Your task to perform on an android device: star an email in the gmail app Image 0: 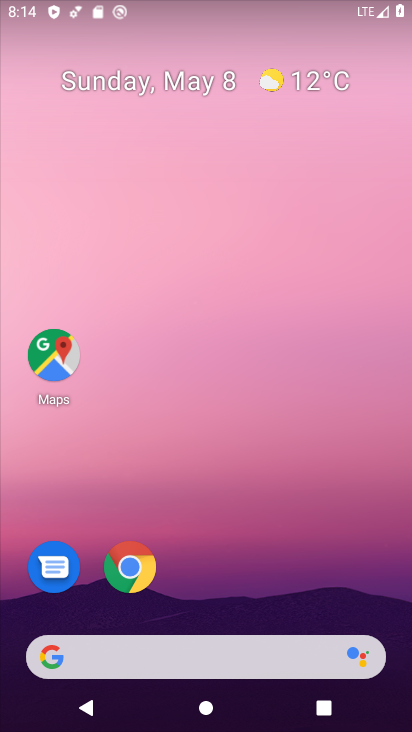
Step 0: drag from (184, 659) to (178, 137)
Your task to perform on an android device: star an email in the gmail app Image 1: 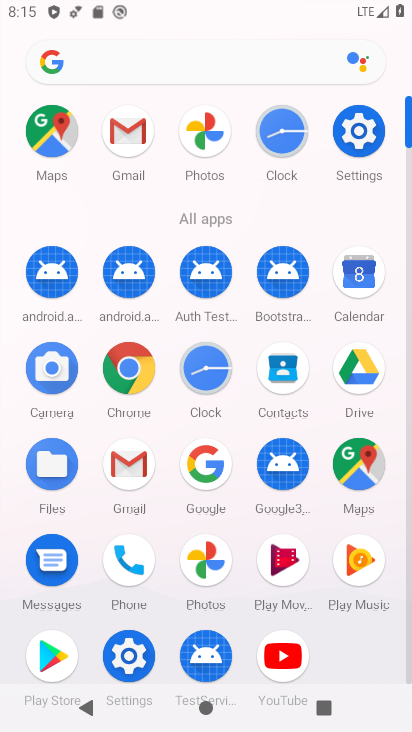
Step 1: click (137, 473)
Your task to perform on an android device: star an email in the gmail app Image 2: 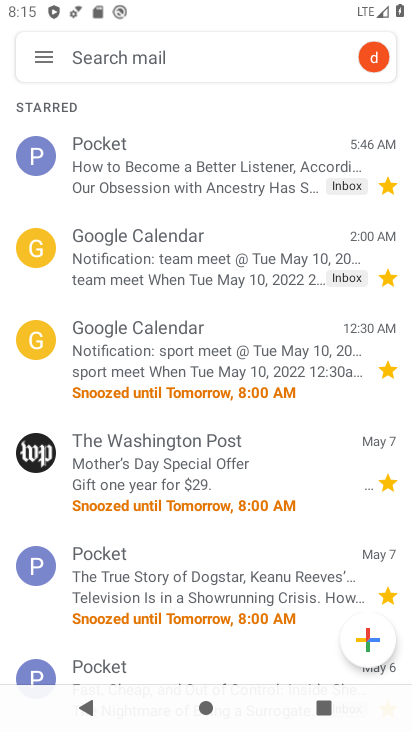
Step 2: task complete